Your task to perform on an android device: Go to battery settings Image 0: 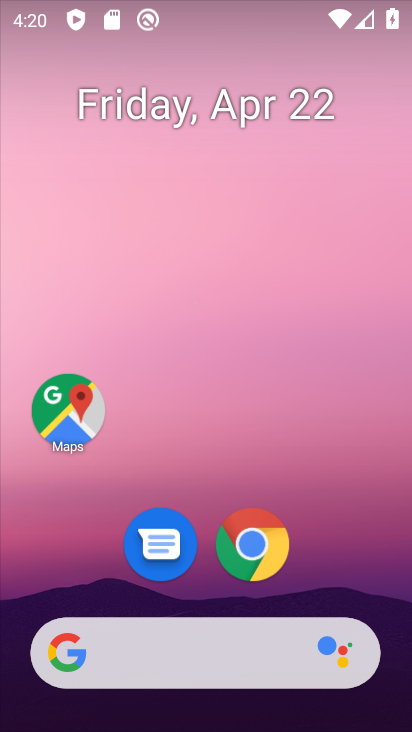
Step 0: drag from (184, 539) to (226, 185)
Your task to perform on an android device: Go to battery settings Image 1: 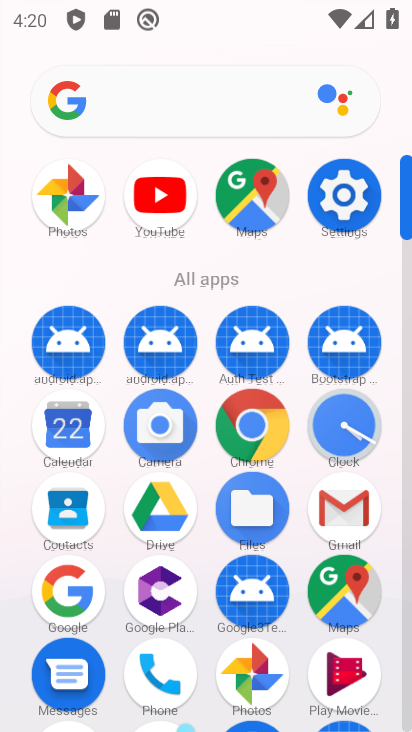
Step 1: click (330, 197)
Your task to perform on an android device: Go to battery settings Image 2: 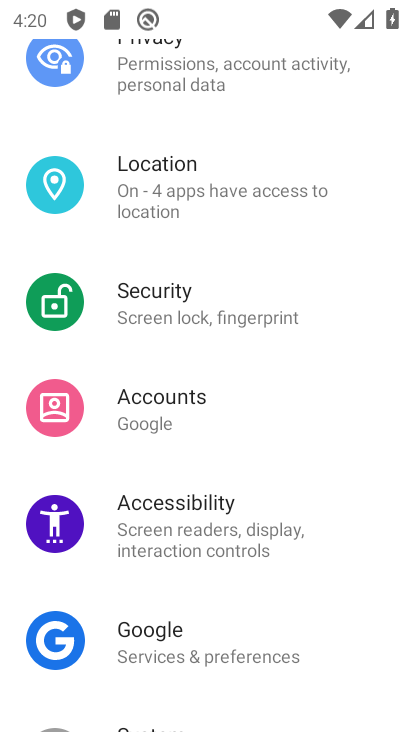
Step 2: drag from (203, 73) to (224, 417)
Your task to perform on an android device: Go to battery settings Image 3: 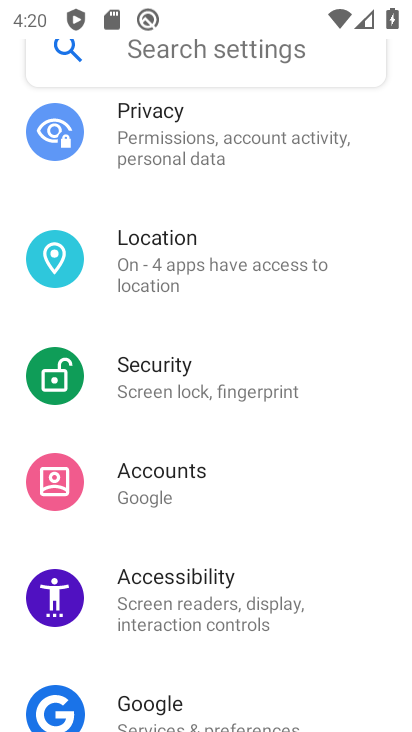
Step 3: drag from (218, 94) to (255, 509)
Your task to perform on an android device: Go to battery settings Image 4: 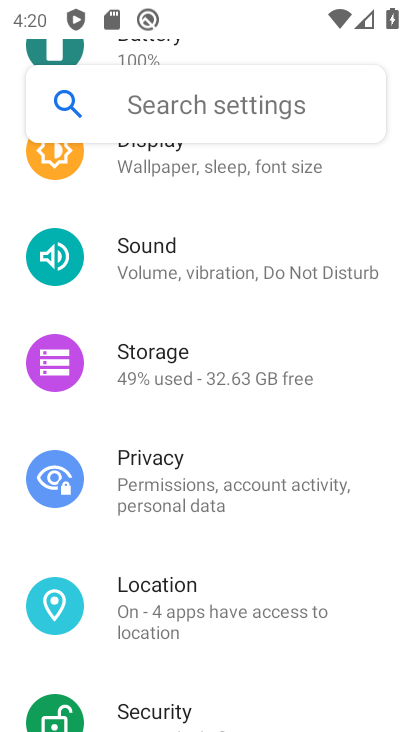
Step 4: drag from (184, 215) to (201, 588)
Your task to perform on an android device: Go to battery settings Image 5: 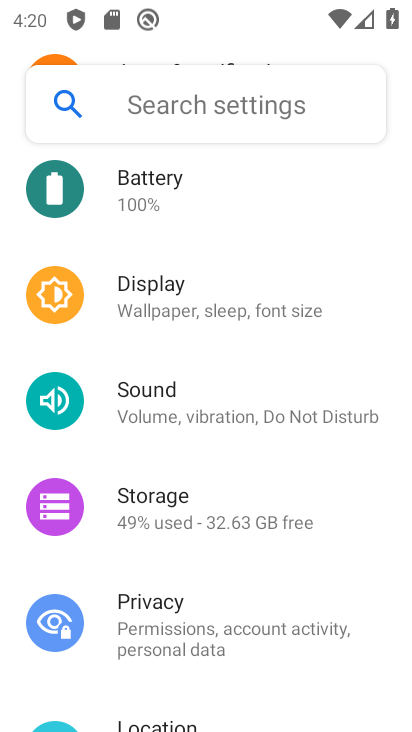
Step 5: click (122, 217)
Your task to perform on an android device: Go to battery settings Image 6: 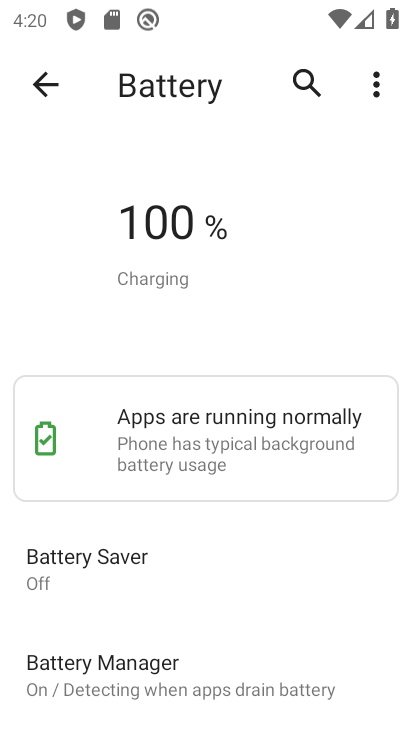
Step 6: task complete